Your task to perform on an android device: toggle wifi Image 0: 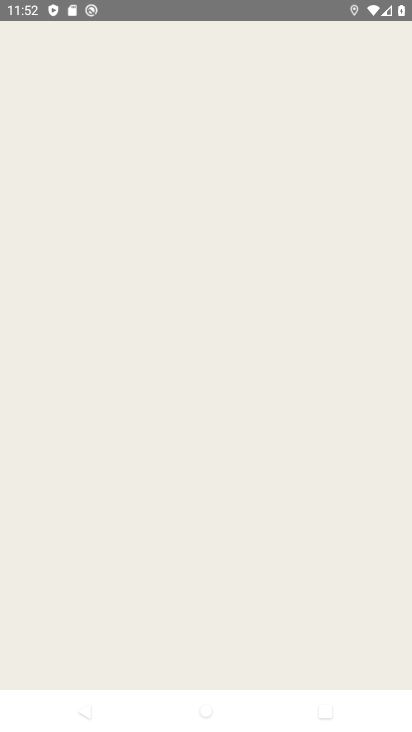
Step 0: press home button
Your task to perform on an android device: toggle wifi Image 1: 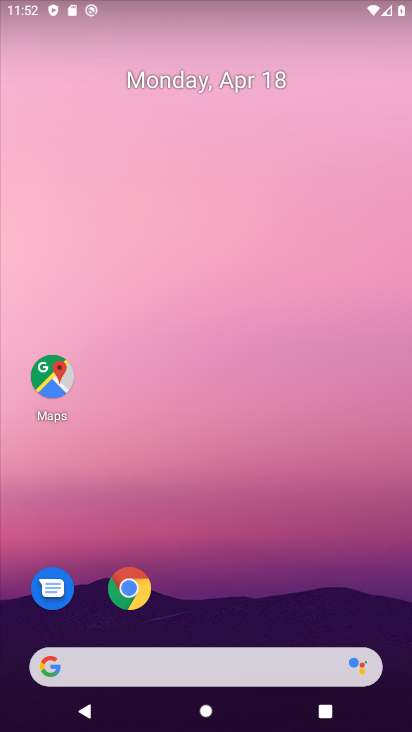
Step 1: drag from (350, 549) to (381, 93)
Your task to perform on an android device: toggle wifi Image 2: 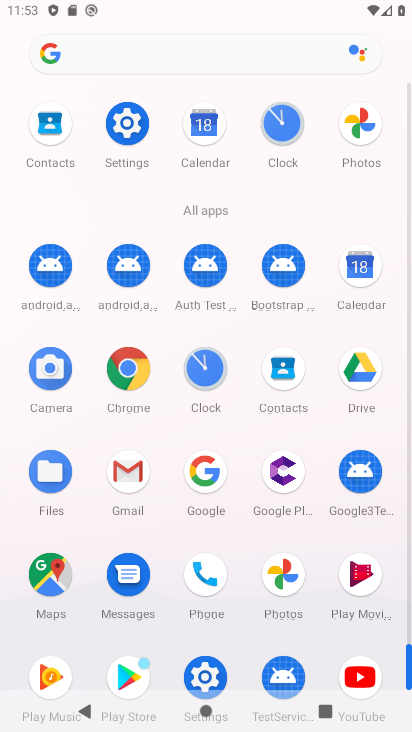
Step 2: click (131, 133)
Your task to perform on an android device: toggle wifi Image 3: 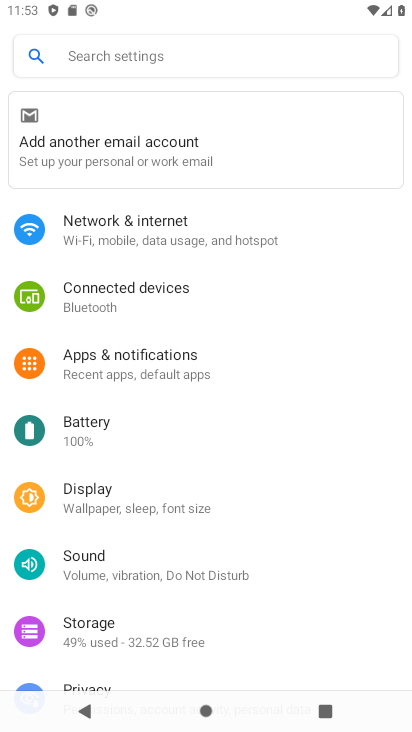
Step 3: click (167, 223)
Your task to perform on an android device: toggle wifi Image 4: 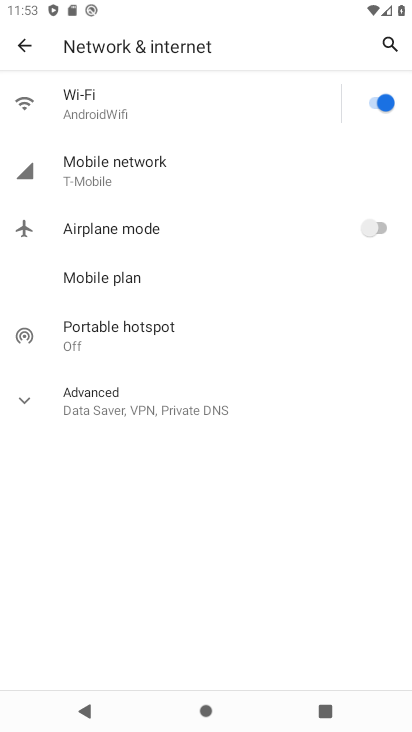
Step 4: click (383, 98)
Your task to perform on an android device: toggle wifi Image 5: 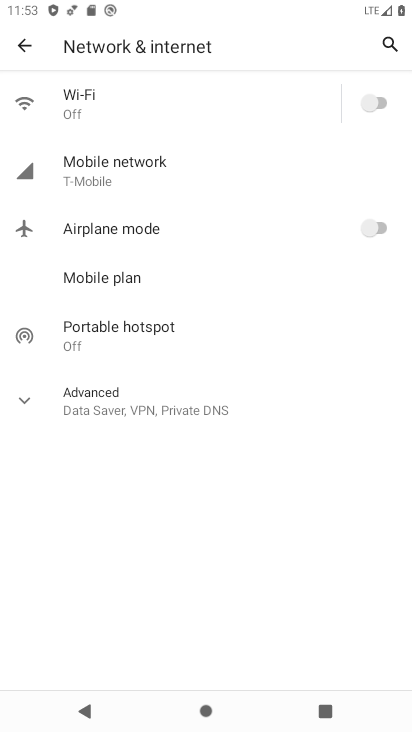
Step 5: task complete